Your task to perform on an android device: Do I have any events this weekend? Image 0: 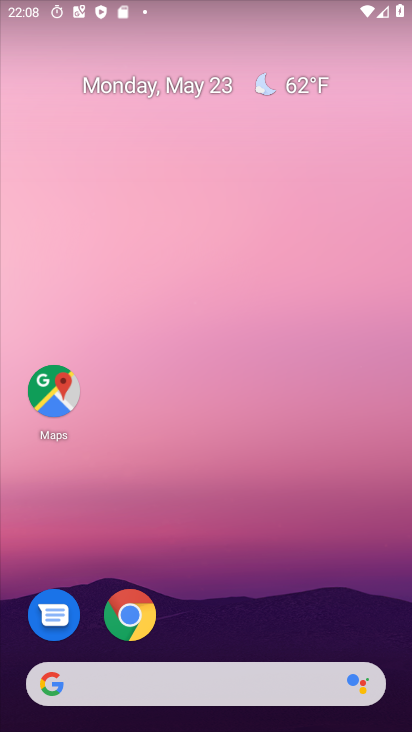
Step 0: drag from (230, 480) to (284, 8)
Your task to perform on an android device: Do I have any events this weekend? Image 1: 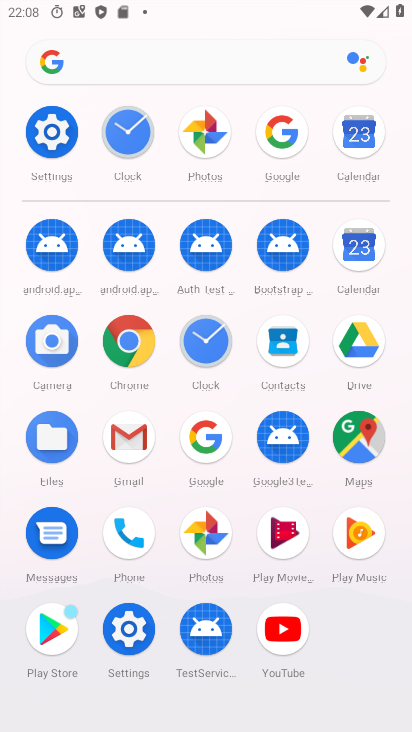
Step 1: click (360, 137)
Your task to perform on an android device: Do I have any events this weekend? Image 2: 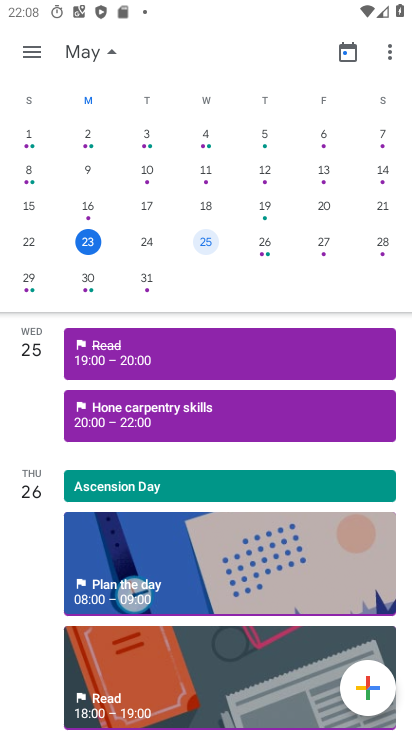
Step 2: click (263, 242)
Your task to perform on an android device: Do I have any events this weekend? Image 3: 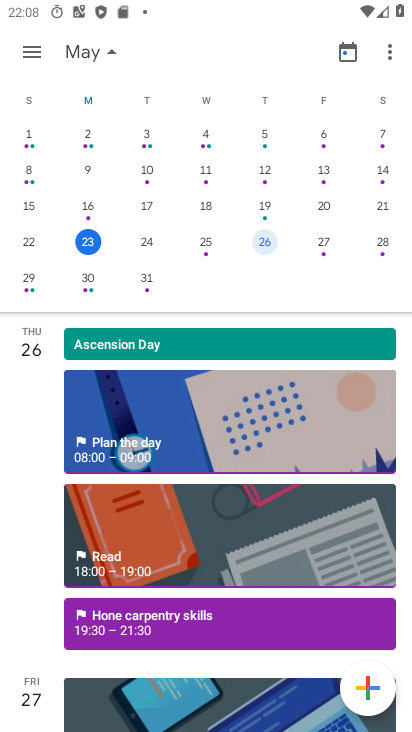
Step 3: task complete